Your task to perform on an android device: open app "Facebook Lite" Image 0: 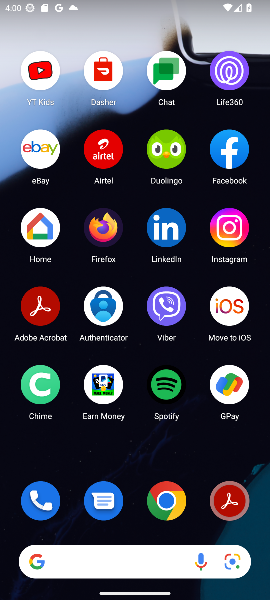
Step 0: press home button
Your task to perform on an android device: open app "Facebook Lite" Image 1: 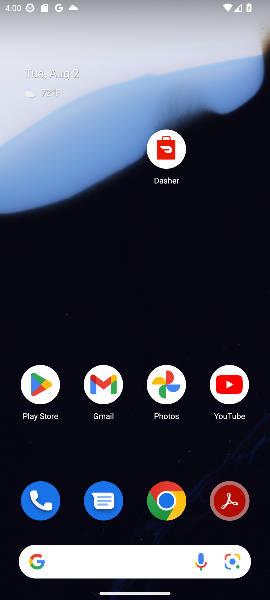
Step 1: click (36, 392)
Your task to perform on an android device: open app "Facebook Lite" Image 2: 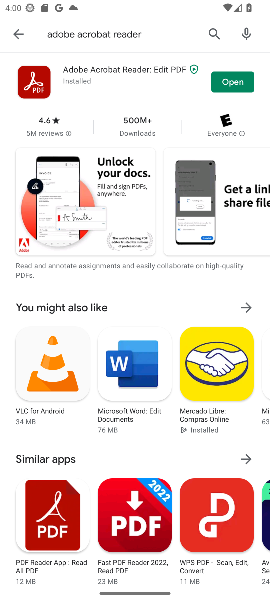
Step 2: click (213, 33)
Your task to perform on an android device: open app "Facebook Lite" Image 3: 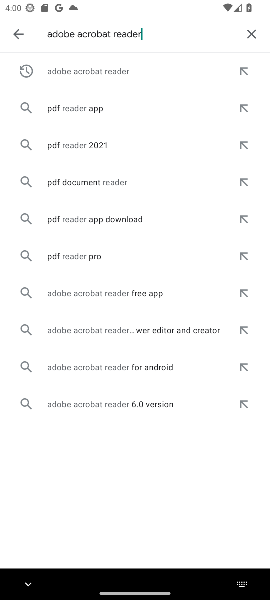
Step 3: click (254, 31)
Your task to perform on an android device: open app "Facebook Lite" Image 4: 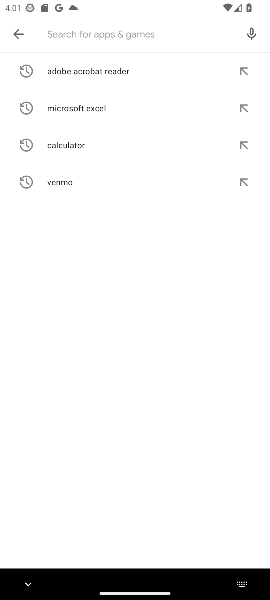
Step 4: type "Facebook Lite"
Your task to perform on an android device: open app "Facebook Lite" Image 5: 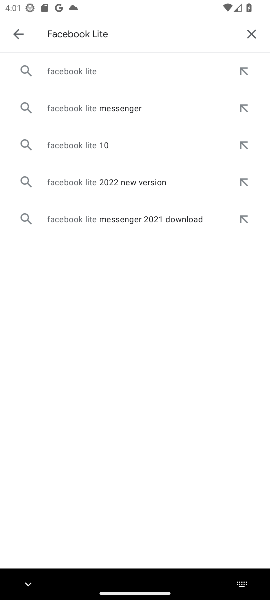
Step 5: click (67, 75)
Your task to perform on an android device: open app "Facebook Lite" Image 6: 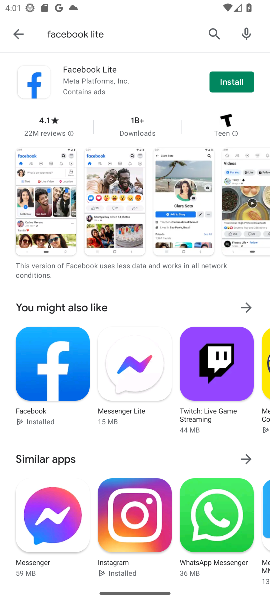
Step 6: task complete